Your task to perform on an android device: clear history in the chrome app Image 0: 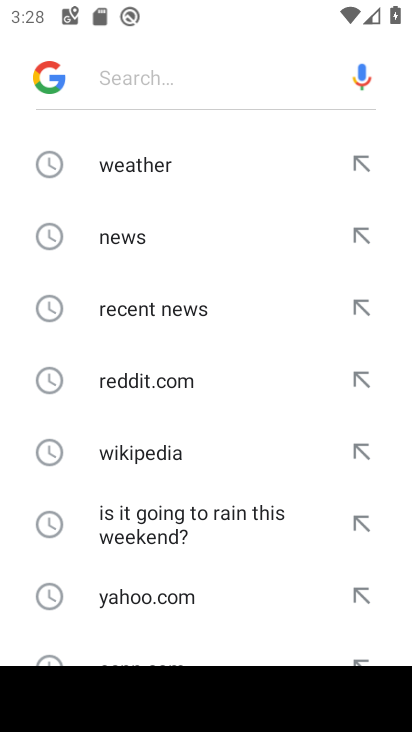
Step 0: press home button
Your task to perform on an android device: clear history in the chrome app Image 1: 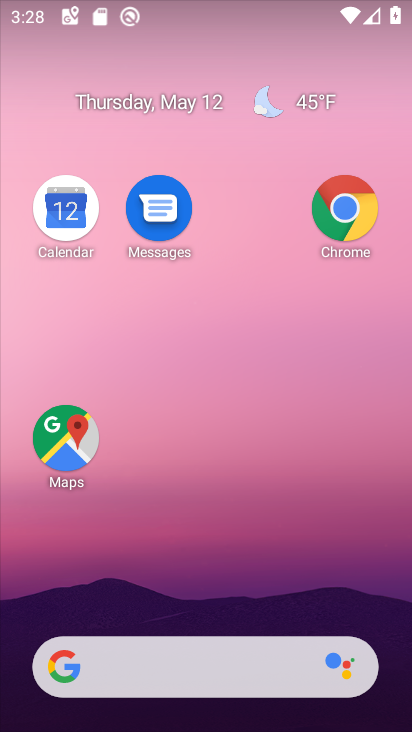
Step 1: drag from (223, 622) to (273, 402)
Your task to perform on an android device: clear history in the chrome app Image 2: 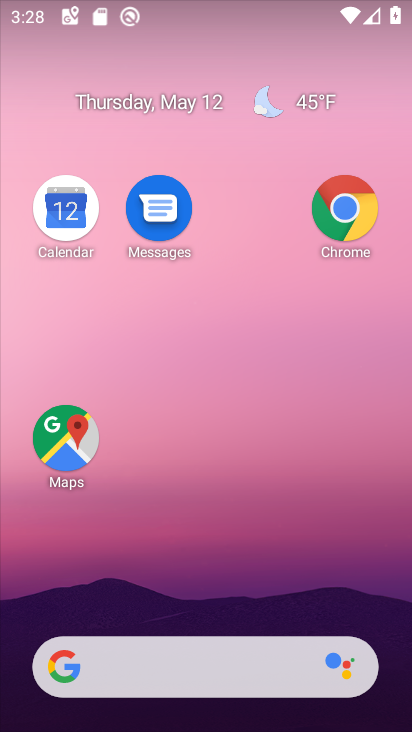
Step 2: drag from (204, 461) to (384, 99)
Your task to perform on an android device: clear history in the chrome app Image 3: 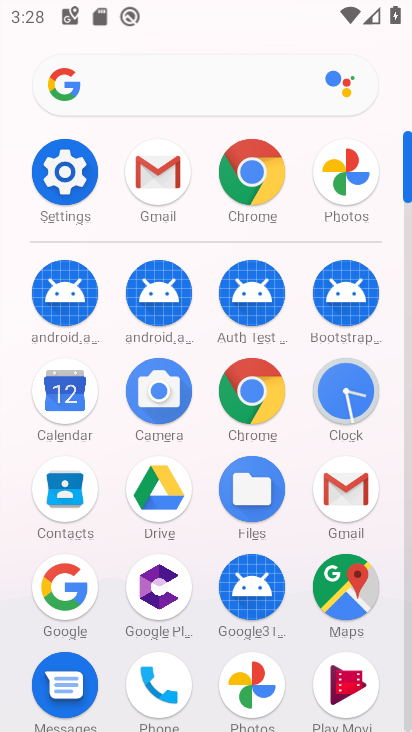
Step 3: click (257, 391)
Your task to perform on an android device: clear history in the chrome app Image 4: 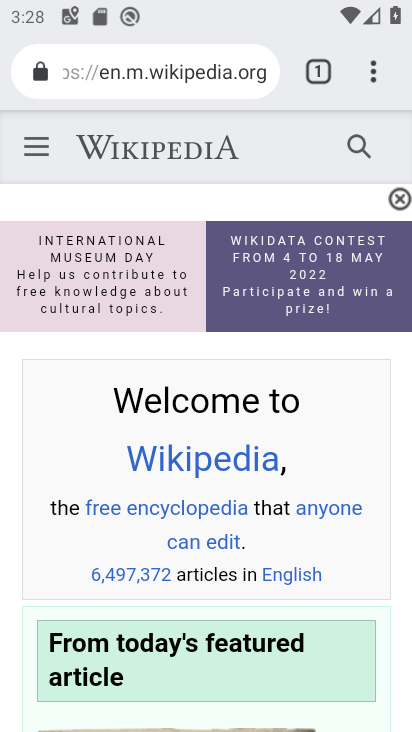
Step 4: drag from (245, 573) to (274, 429)
Your task to perform on an android device: clear history in the chrome app Image 5: 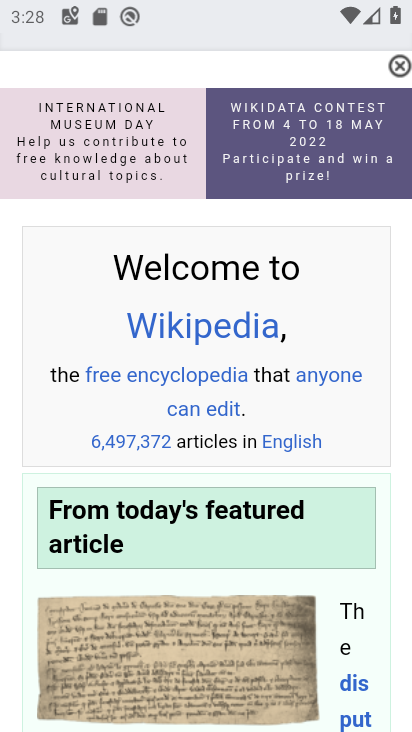
Step 5: drag from (341, 197) to (334, 371)
Your task to perform on an android device: clear history in the chrome app Image 6: 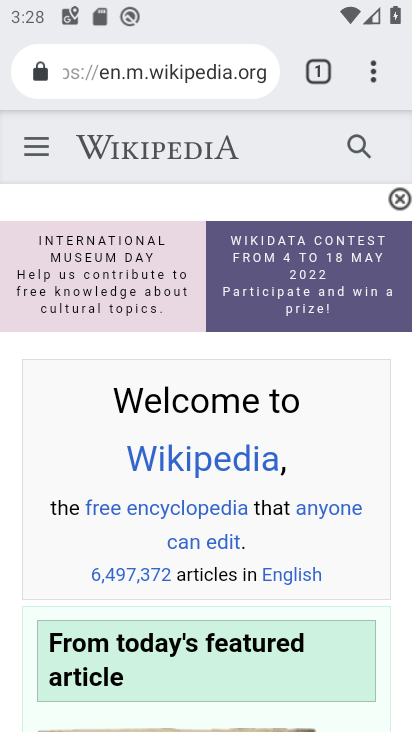
Step 6: click (381, 70)
Your task to perform on an android device: clear history in the chrome app Image 7: 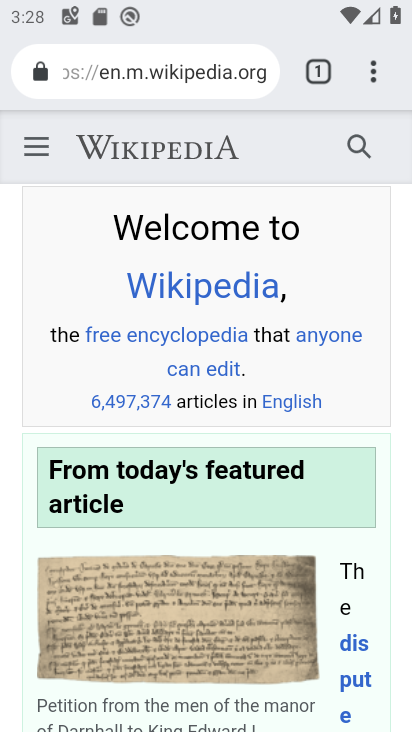
Step 7: click (377, 69)
Your task to perform on an android device: clear history in the chrome app Image 8: 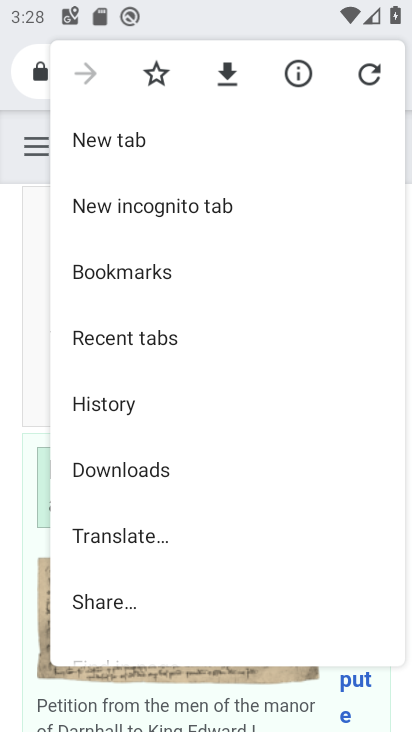
Step 8: click (125, 423)
Your task to perform on an android device: clear history in the chrome app Image 9: 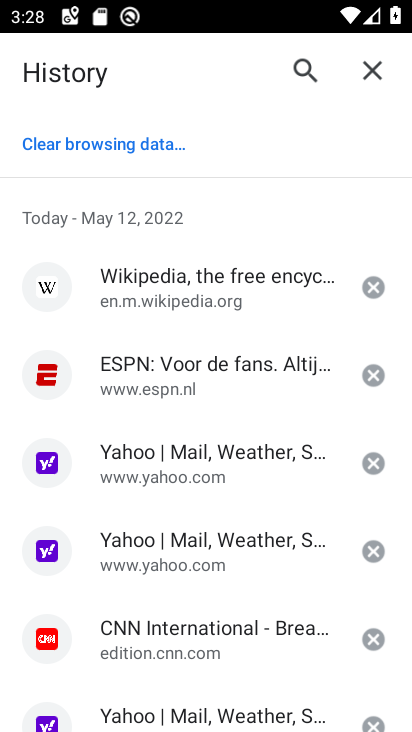
Step 9: click (128, 129)
Your task to perform on an android device: clear history in the chrome app Image 10: 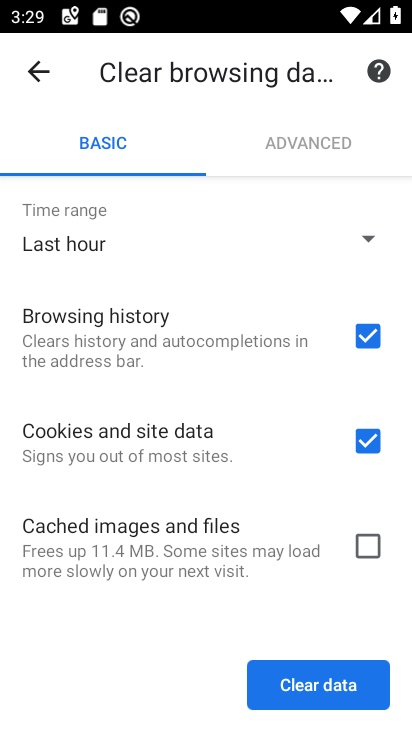
Step 10: click (302, 691)
Your task to perform on an android device: clear history in the chrome app Image 11: 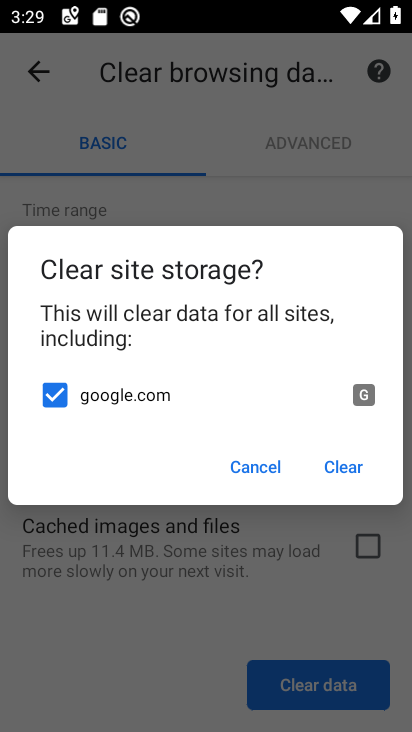
Step 11: click (342, 471)
Your task to perform on an android device: clear history in the chrome app Image 12: 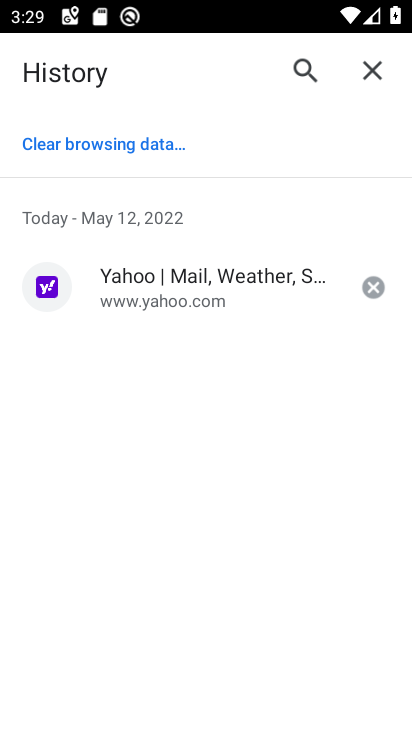
Step 12: drag from (260, 518) to (351, 193)
Your task to perform on an android device: clear history in the chrome app Image 13: 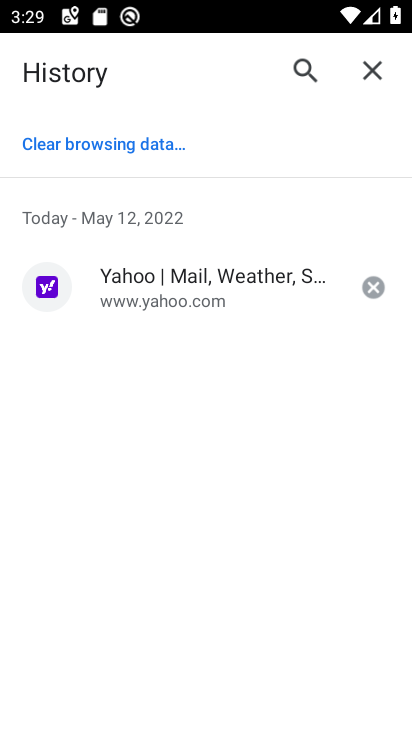
Step 13: click (82, 145)
Your task to perform on an android device: clear history in the chrome app Image 14: 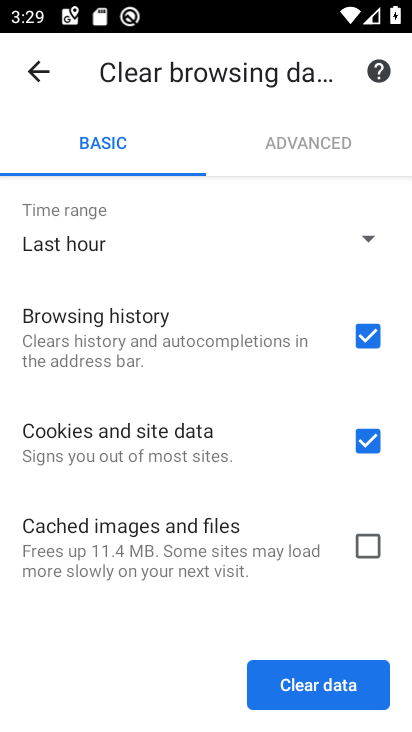
Step 14: drag from (203, 398) to (262, 182)
Your task to perform on an android device: clear history in the chrome app Image 15: 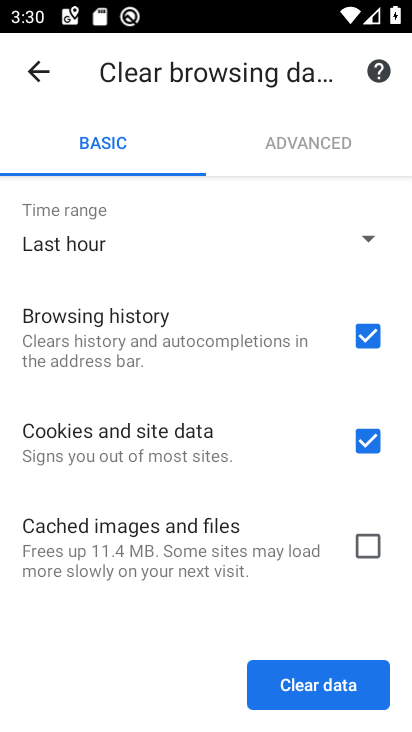
Step 15: click (321, 679)
Your task to perform on an android device: clear history in the chrome app Image 16: 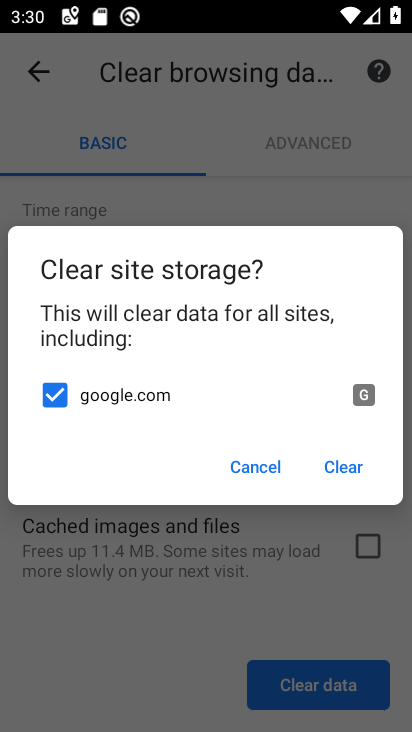
Step 16: task complete